Your task to perform on an android device: Go to Yahoo.com Image 0: 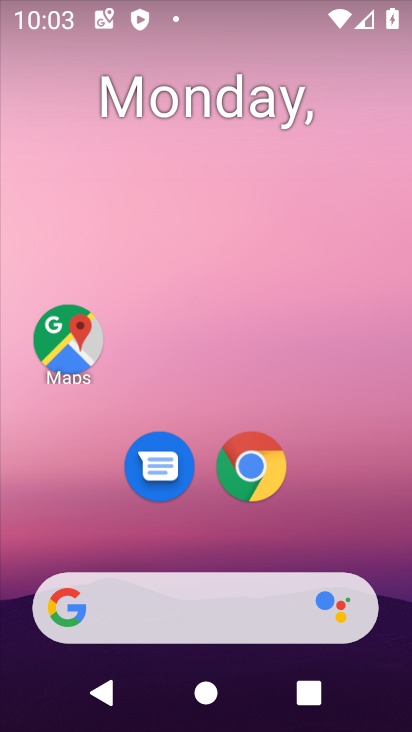
Step 0: click (257, 466)
Your task to perform on an android device: Go to Yahoo.com Image 1: 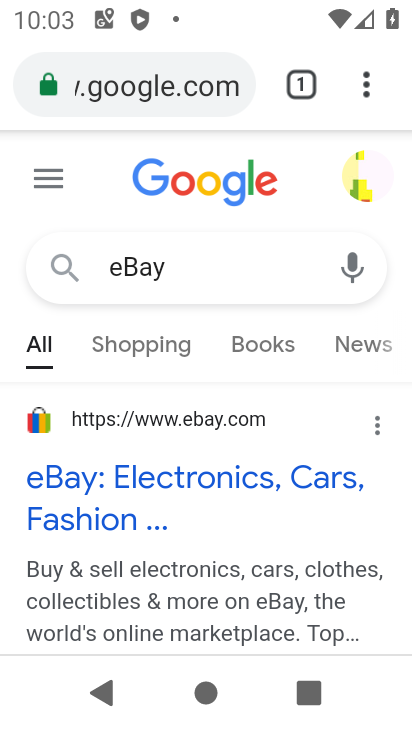
Step 1: type "Yahoo.com"
Your task to perform on an android device: Go to Yahoo.com Image 2: 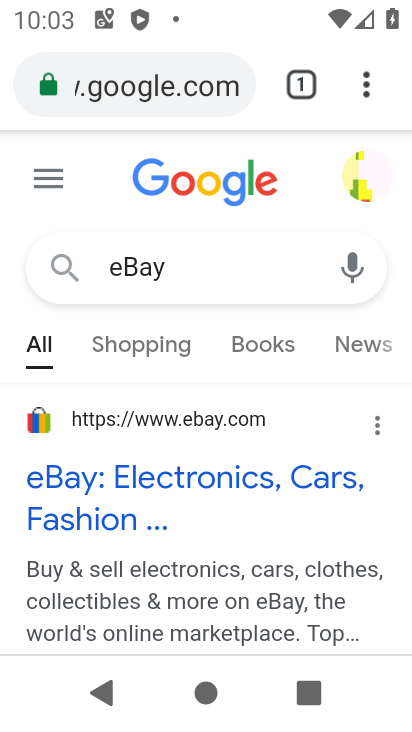
Step 2: click (165, 89)
Your task to perform on an android device: Go to Yahoo.com Image 3: 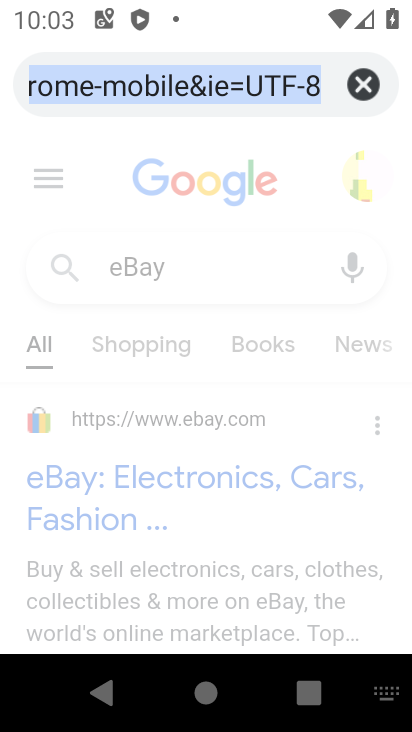
Step 3: type "yahoo.com"
Your task to perform on an android device: Go to Yahoo.com Image 4: 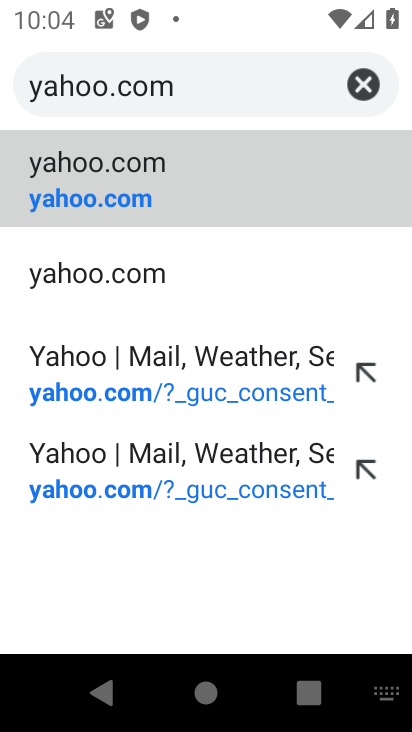
Step 4: click (123, 186)
Your task to perform on an android device: Go to Yahoo.com Image 5: 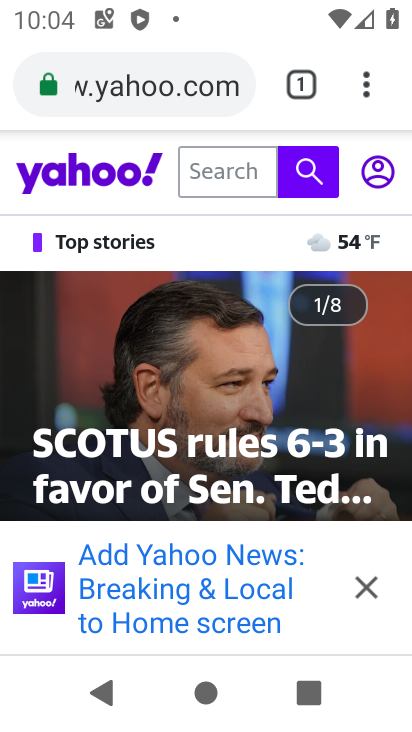
Step 5: task complete